Your task to perform on an android device: change alarm snooze length Image 0: 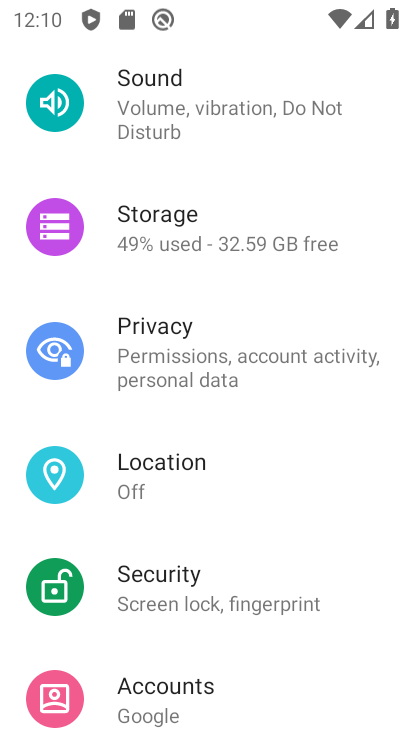
Step 0: press home button
Your task to perform on an android device: change alarm snooze length Image 1: 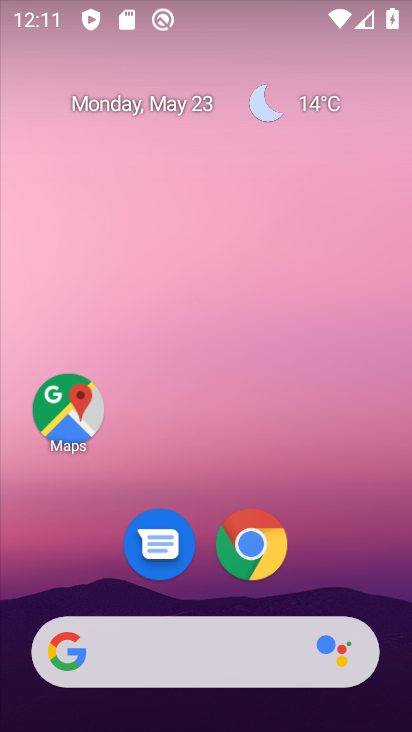
Step 1: drag from (387, 541) to (277, 151)
Your task to perform on an android device: change alarm snooze length Image 2: 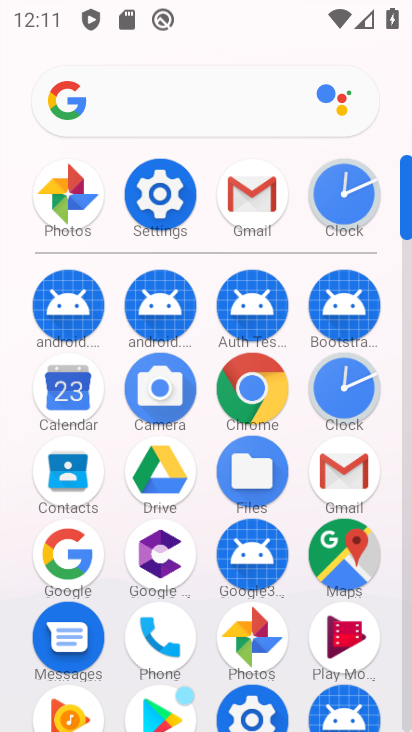
Step 2: click (352, 388)
Your task to perform on an android device: change alarm snooze length Image 3: 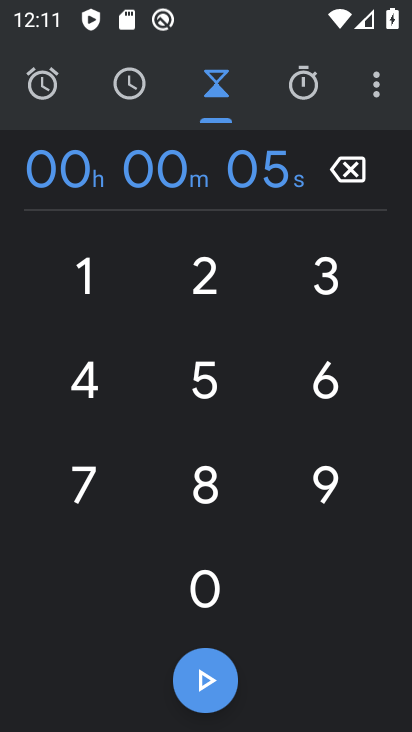
Step 3: click (377, 94)
Your task to perform on an android device: change alarm snooze length Image 4: 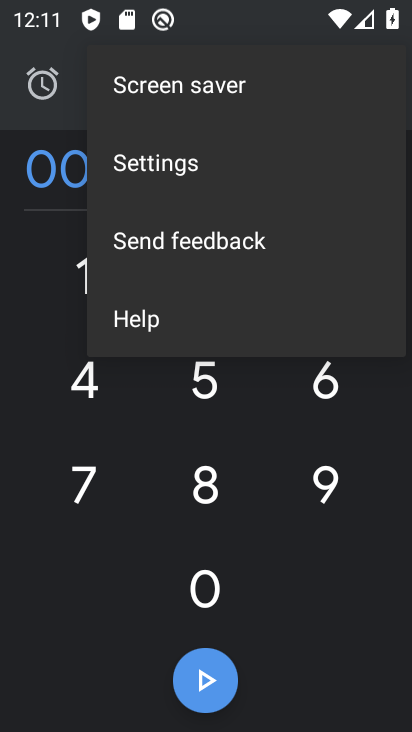
Step 4: click (224, 178)
Your task to perform on an android device: change alarm snooze length Image 5: 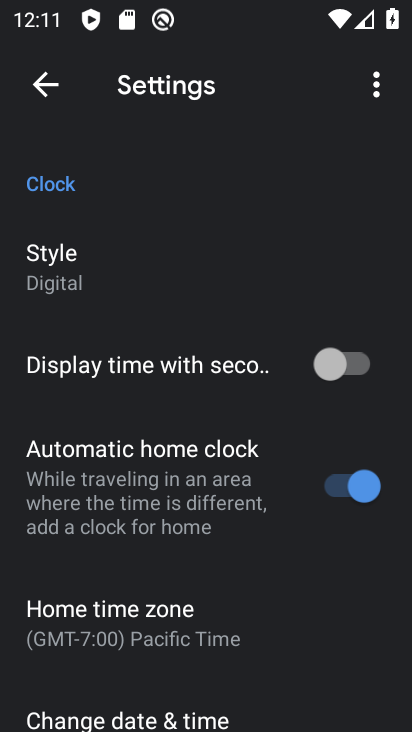
Step 5: drag from (174, 628) to (152, 179)
Your task to perform on an android device: change alarm snooze length Image 6: 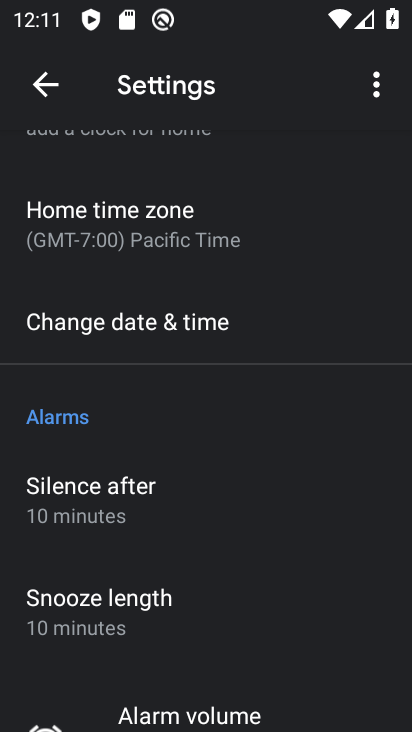
Step 6: click (108, 605)
Your task to perform on an android device: change alarm snooze length Image 7: 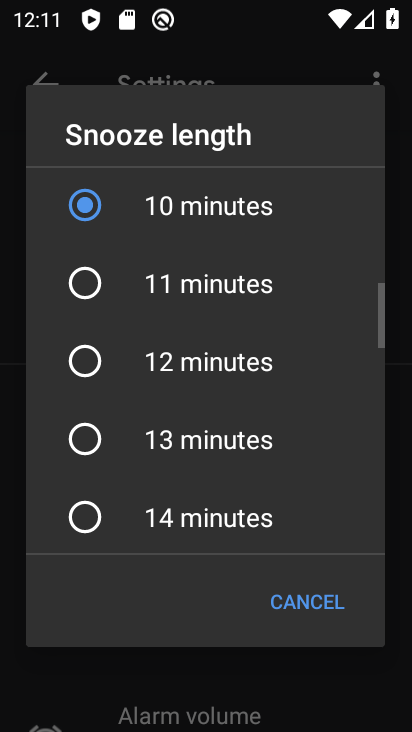
Step 7: click (232, 277)
Your task to perform on an android device: change alarm snooze length Image 8: 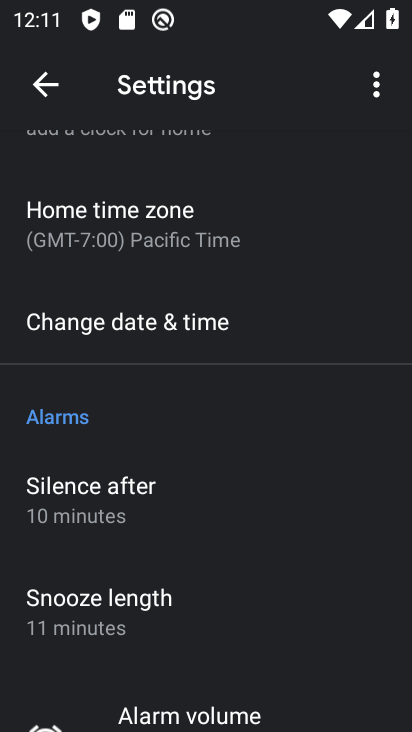
Step 8: task complete